Your task to perform on an android device: Go to accessibility settings Image 0: 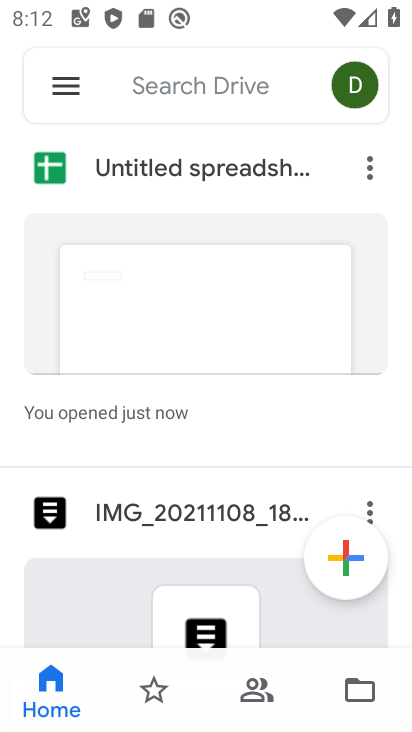
Step 0: press home button
Your task to perform on an android device: Go to accessibility settings Image 1: 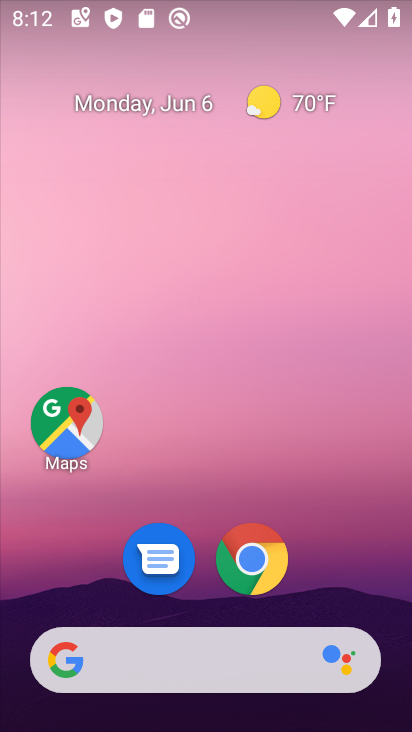
Step 1: drag from (234, 728) to (249, 169)
Your task to perform on an android device: Go to accessibility settings Image 2: 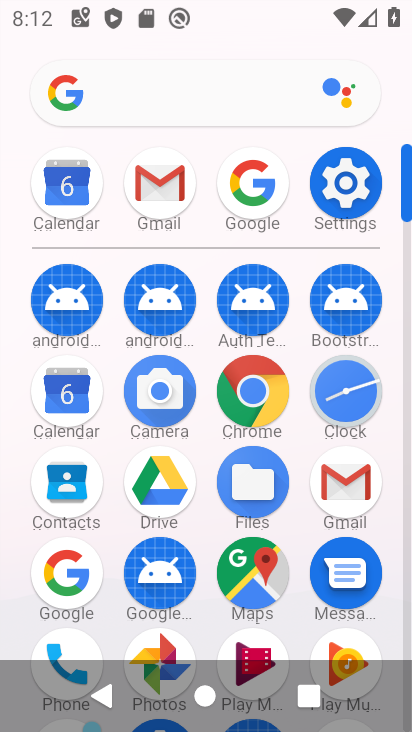
Step 2: click (350, 180)
Your task to perform on an android device: Go to accessibility settings Image 3: 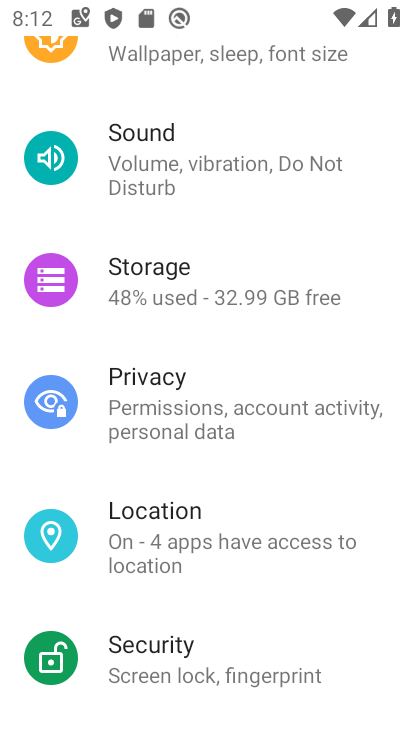
Step 3: drag from (171, 668) to (168, 318)
Your task to perform on an android device: Go to accessibility settings Image 4: 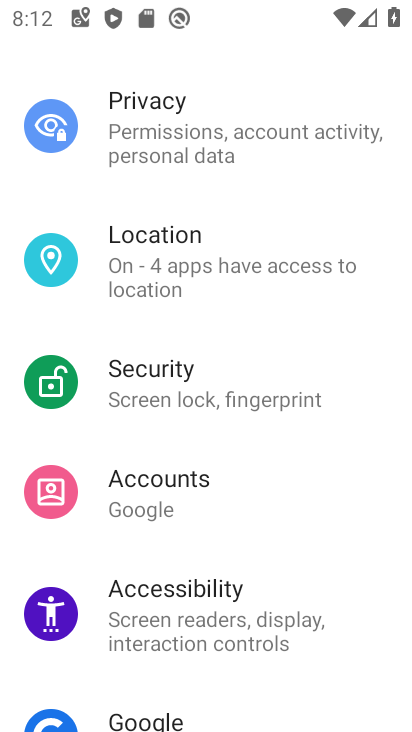
Step 4: click (170, 600)
Your task to perform on an android device: Go to accessibility settings Image 5: 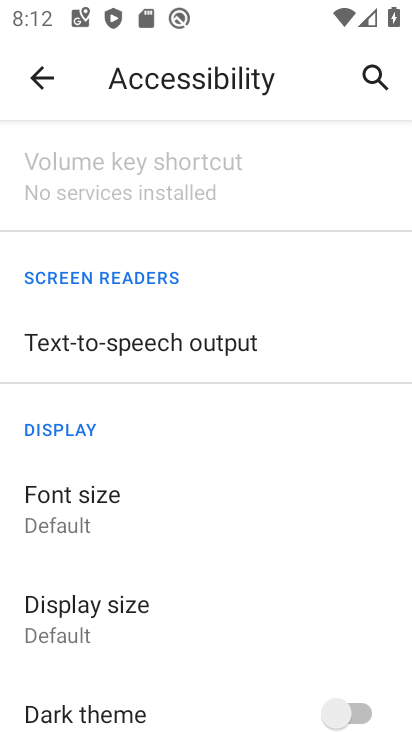
Step 5: task complete